Your task to perform on an android device: find snoozed emails in the gmail app Image 0: 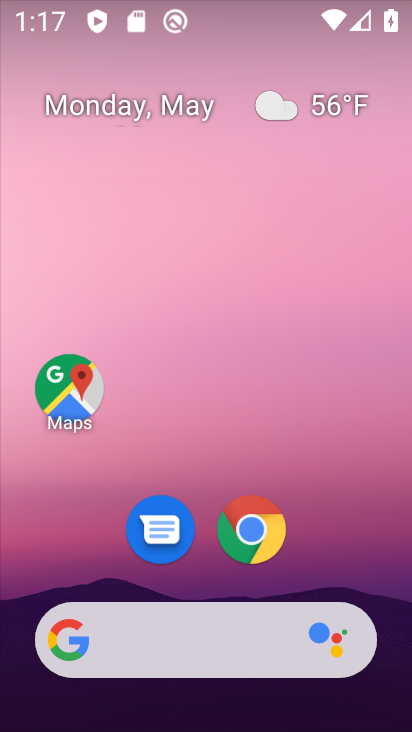
Step 0: drag from (316, 554) to (202, 50)
Your task to perform on an android device: find snoozed emails in the gmail app Image 1: 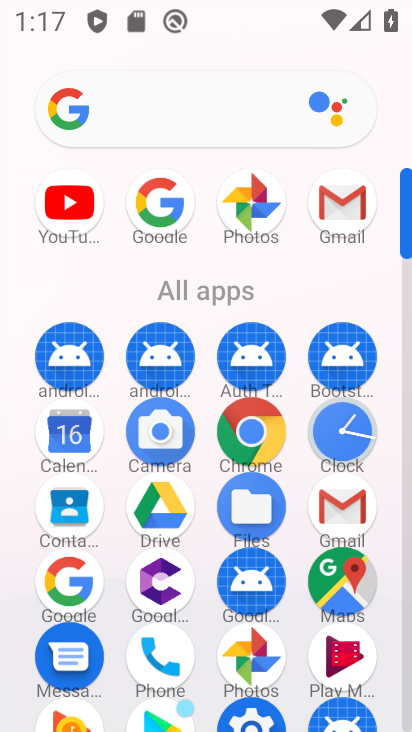
Step 1: click (332, 518)
Your task to perform on an android device: find snoozed emails in the gmail app Image 2: 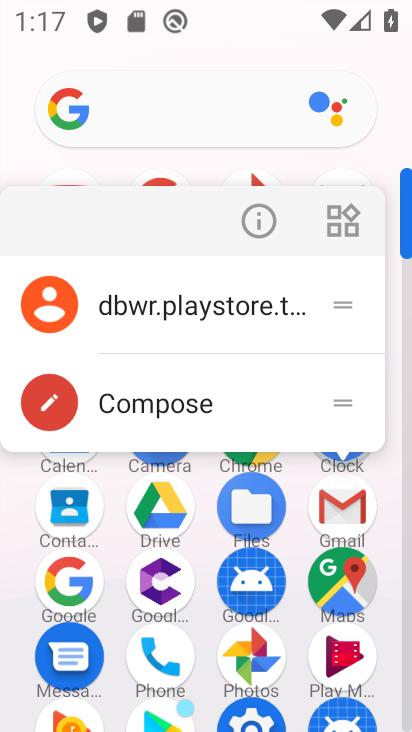
Step 2: click (344, 508)
Your task to perform on an android device: find snoozed emails in the gmail app Image 3: 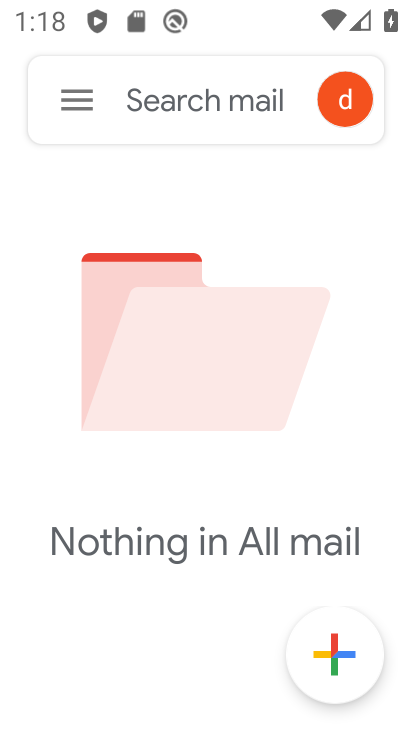
Step 3: click (77, 100)
Your task to perform on an android device: find snoozed emails in the gmail app Image 4: 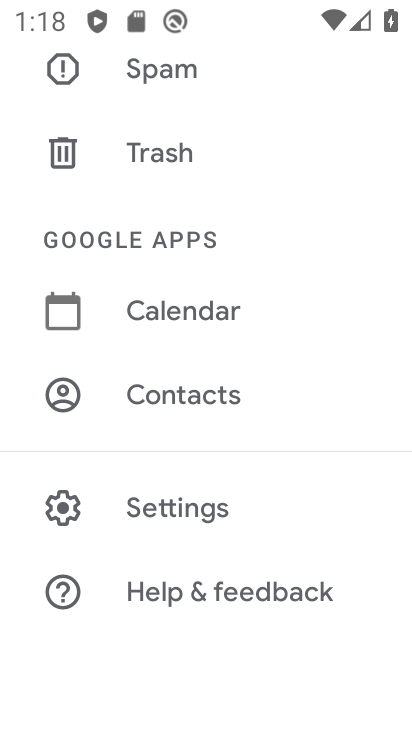
Step 4: drag from (180, 235) to (234, 687)
Your task to perform on an android device: find snoozed emails in the gmail app Image 5: 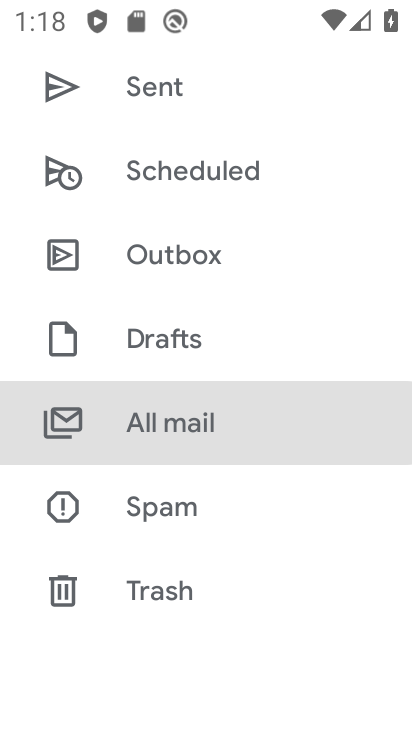
Step 5: drag from (223, 267) to (269, 511)
Your task to perform on an android device: find snoozed emails in the gmail app Image 6: 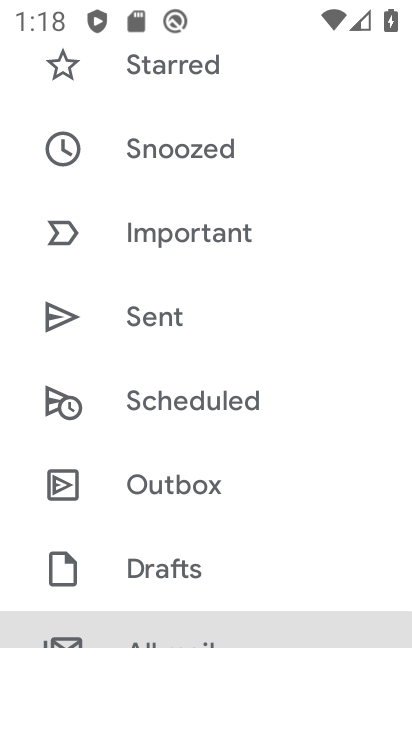
Step 6: click (188, 147)
Your task to perform on an android device: find snoozed emails in the gmail app Image 7: 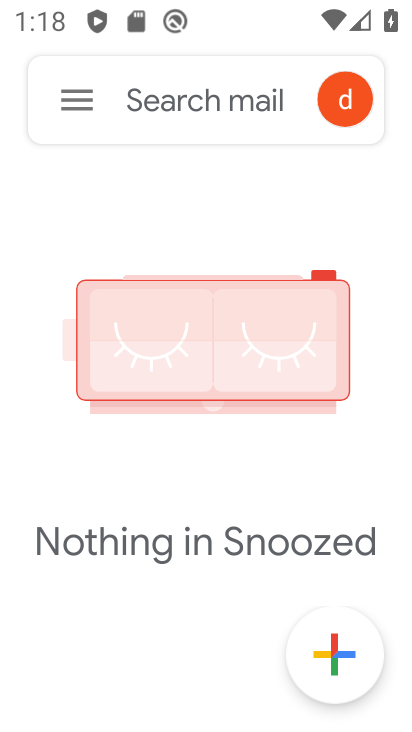
Step 7: task complete